Your task to perform on an android device: check the backup settings in the google photos Image 0: 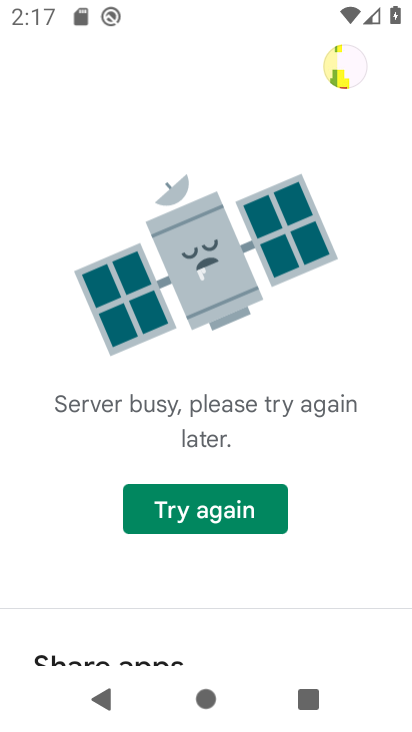
Step 0: press home button
Your task to perform on an android device: check the backup settings in the google photos Image 1: 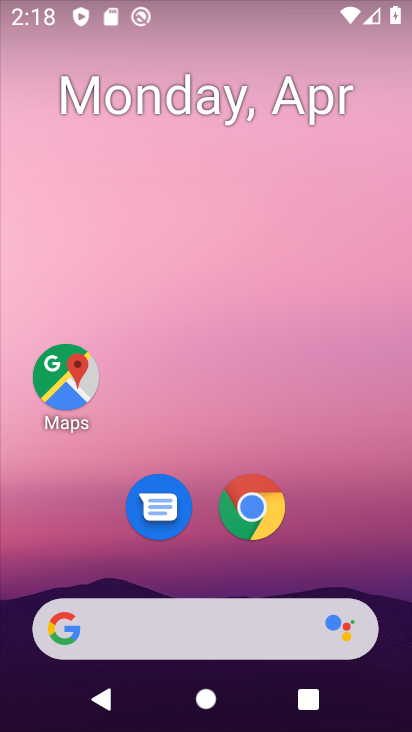
Step 1: drag from (401, 640) to (334, 98)
Your task to perform on an android device: check the backup settings in the google photos Image 2: 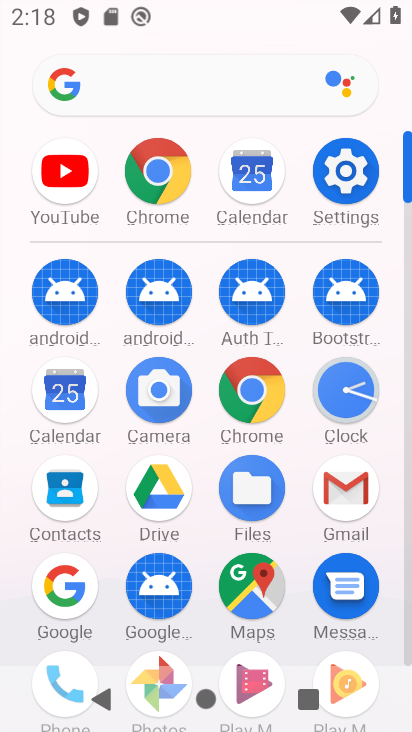
Step 2: click (408, 645)
Your task to perform on an android device: check the backup settings in the google photos Image 3: 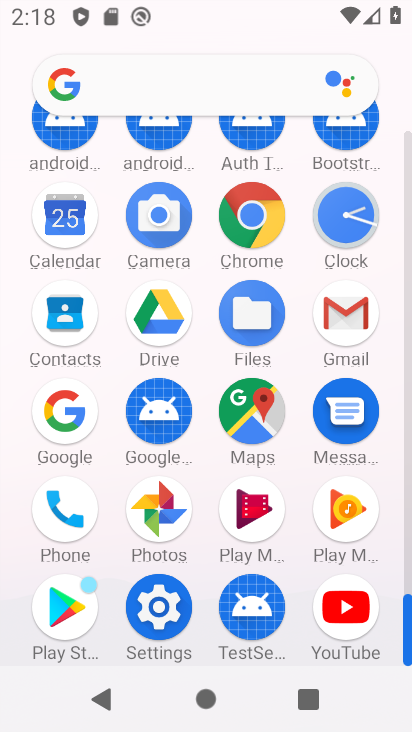
Step 3: click (156, 511)
Your task to perform on an android device: check the backup settings in the google photos Image 4: 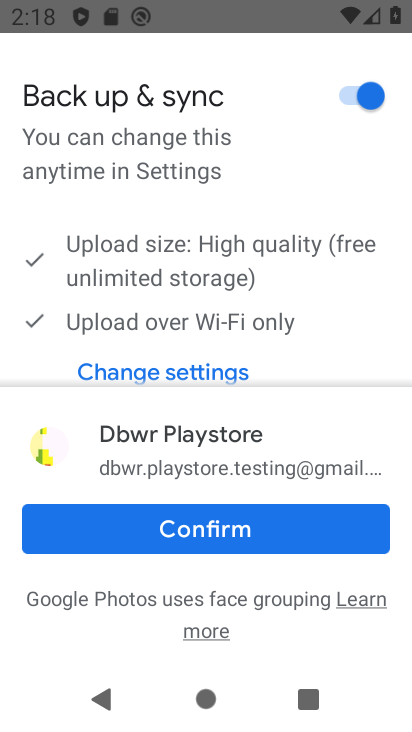
Step 4: click (168, 515)
Your task to perform on an android device: check the backup settings in the google photos Image 5: 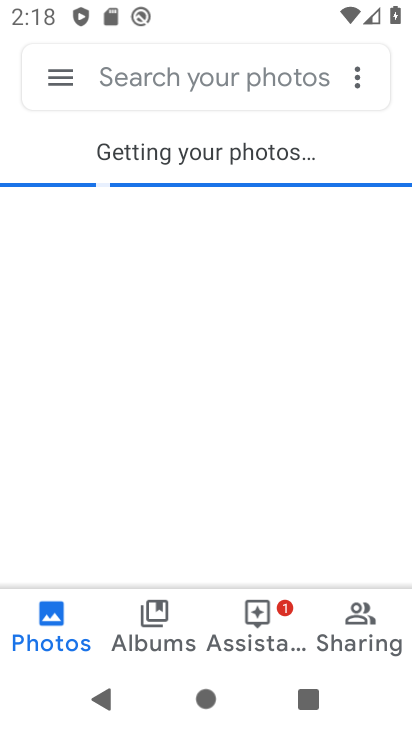
Step 5: click (58, 74)
Your task to perform on an android device: check the backup settings in the google photos Image 6: 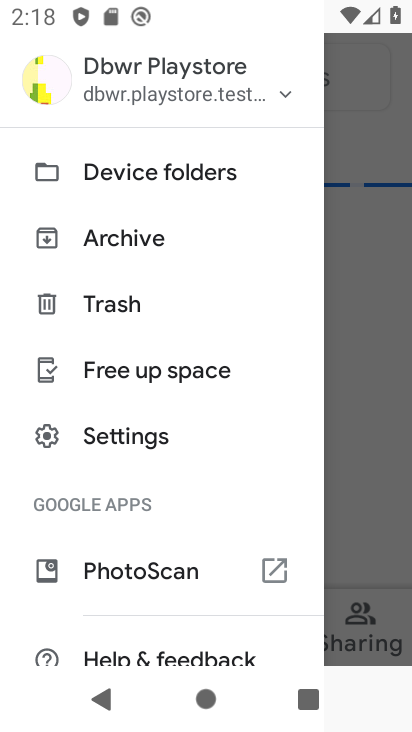
Step 6: click (133, 431)
Your task to perform on an android device: check the backup settings in the google photos Image 7: 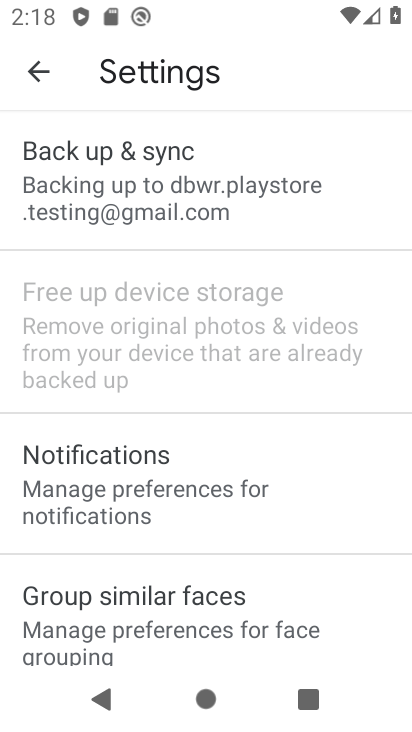
Step 7: click (118, 182)
Your task to perform on an android device: check the backup settings in the google photos Image 8: 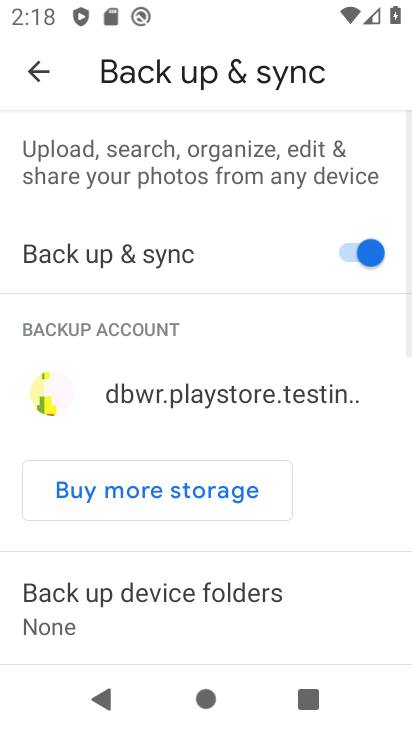
Step 8: task complete